Your task to perform on an android device: add a label to a message in the gmail app Image 0: 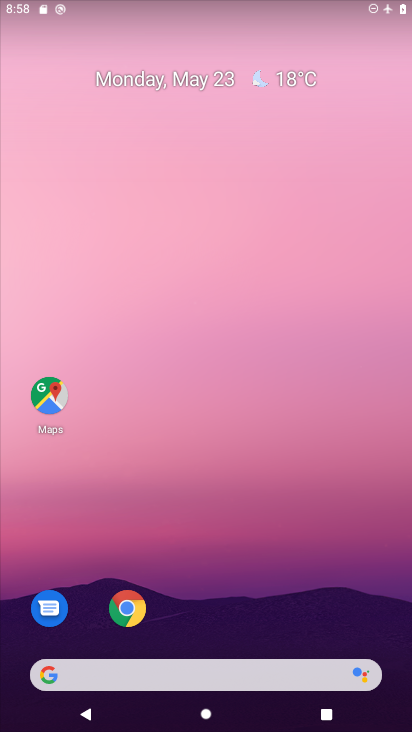
Step 0: drag from (228, 728) to (228, 57)
Your task to perform on an android device: add a label to a message in the gmail app Image 1: 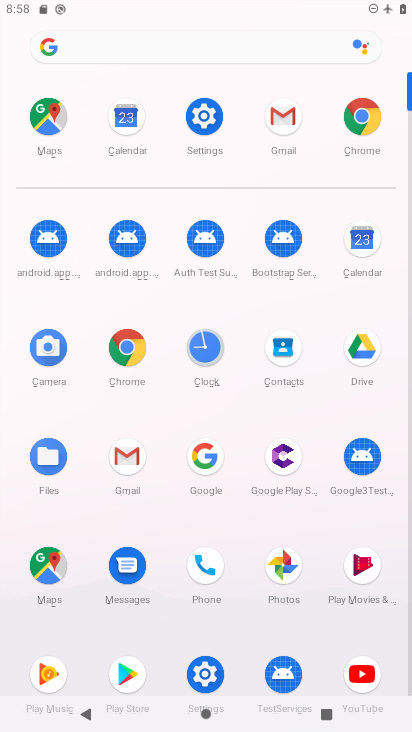
Step 1: click (129, 450)
Your task to perform on an android device: add a label to a message in the gmail app Image 2: 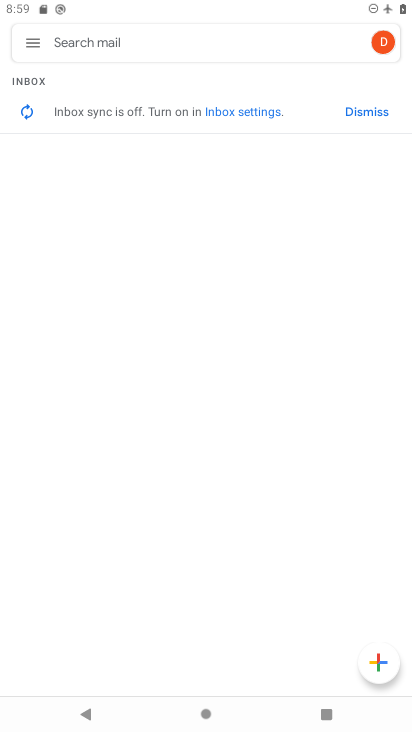
Step 2: task complete